Your task to perform on an android device: refresh tabs in the chrome app Image 0: 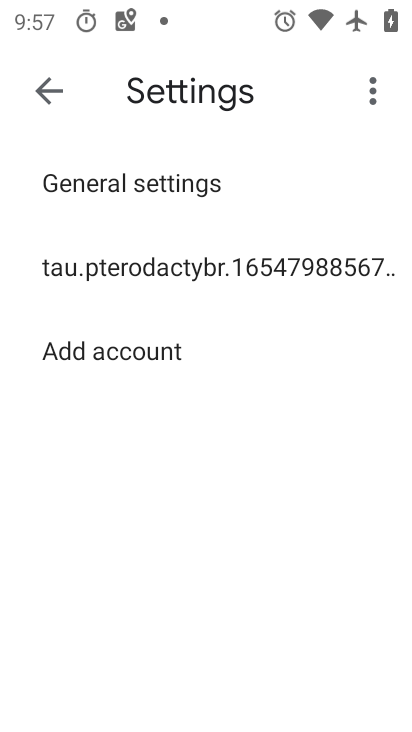
Step 0: press home button
Your task to perform on an android device: refresh tabs in the chrome app Image 1: 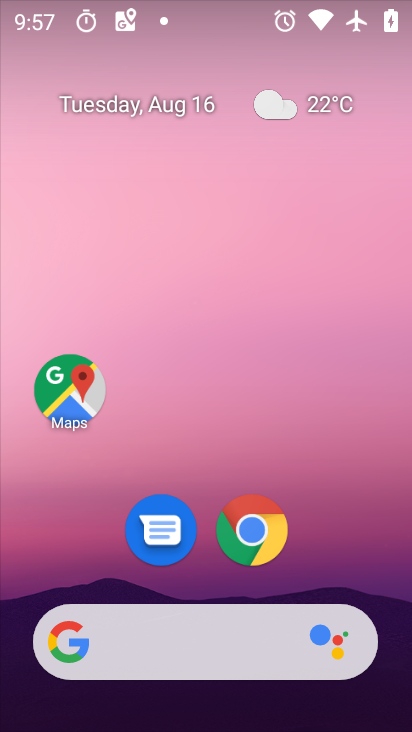
Step 1: click (255, 531)
Your task to perform on an android device: refresh tabs in the chrome app Image 2: 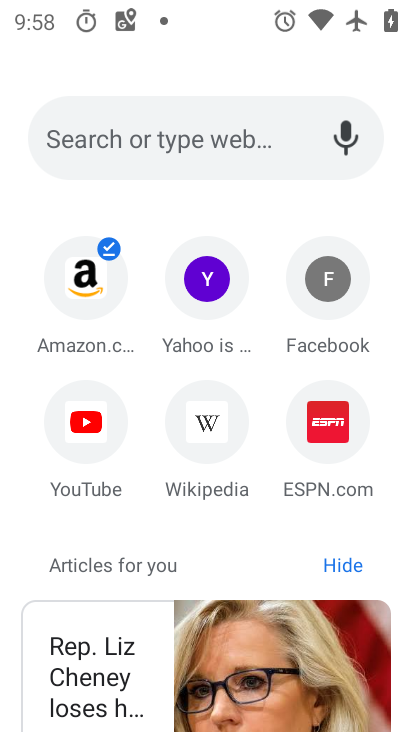
Step 2: drag from (233, 72) to (204, 383)
Your task to perform on an android device: refresh tabs in the chrome app Image 3: 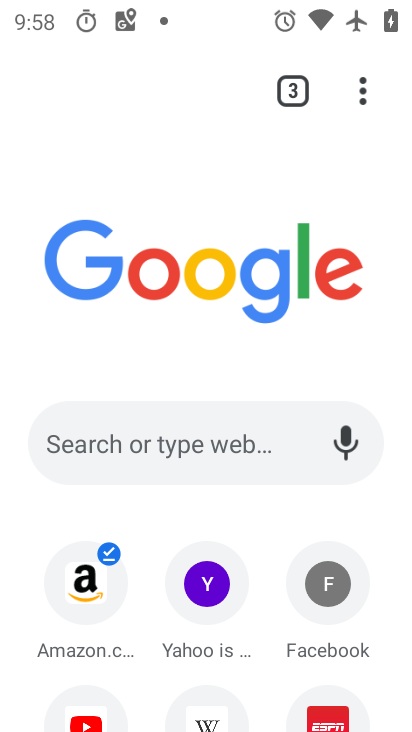
Step 3: click (367, 80)
Your task to perform on an android device: refresh tabs in the chrome app Image 4: 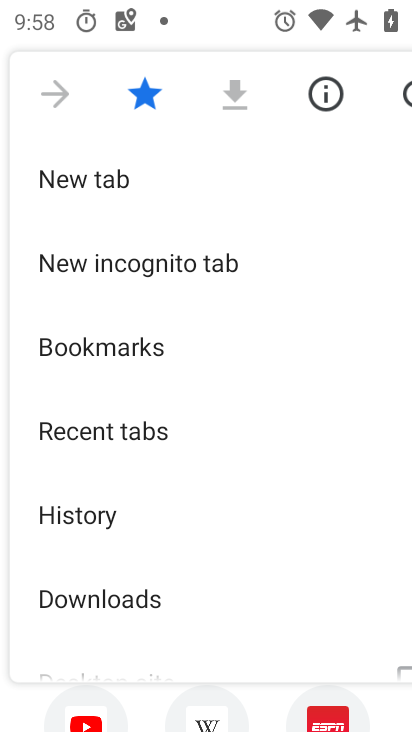
Step 4: click (406, 89)
Your task to perform on an android device: refresh tabs in the chrome app Image 5: 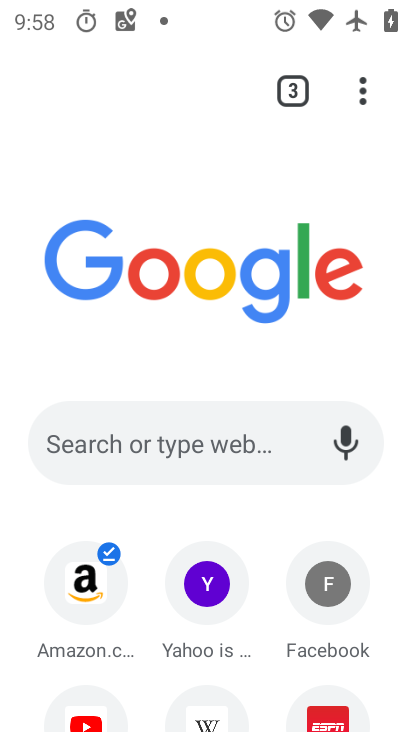
Step 5: task complete